Your task to perform on an android device: open device folders in google photos Image 0: 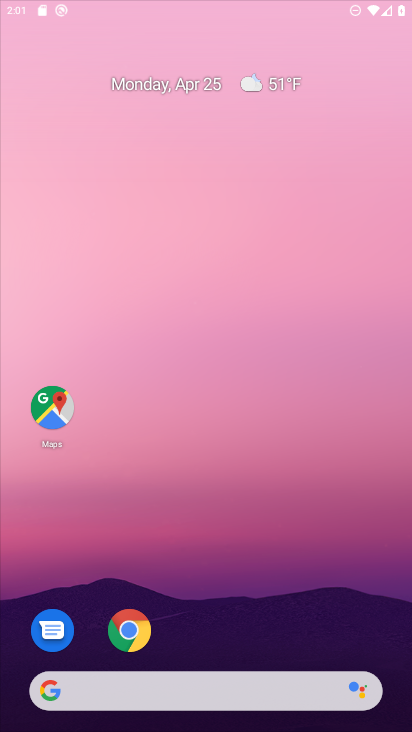
Step 0: click (318, 140)
Your task to perform on an android device: open device folders in google photos Image 1: 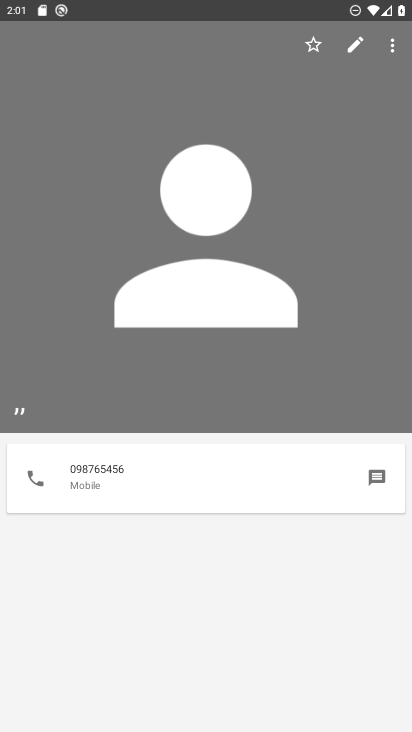
Step 1: click (397, 55)
Your task to perform on an android device: open device folders in google photos Image 2: 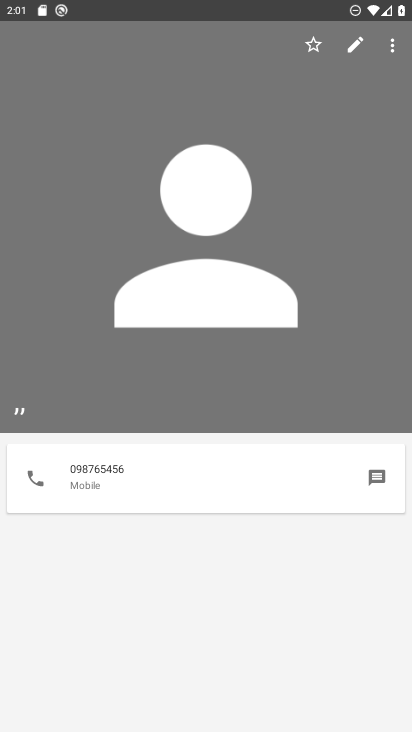
Step 2: press back button
Your task to perform on an android device: open device folders in google photos Image 3: 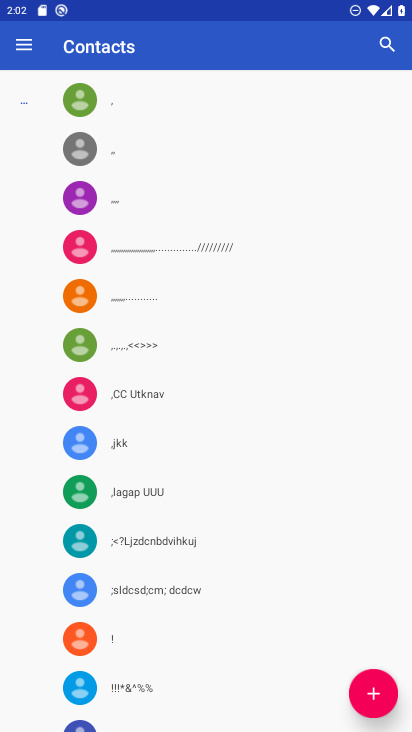
Step 3: click (21, 50)
Your task to perform on an android device: open device folders in google photos Image 4: 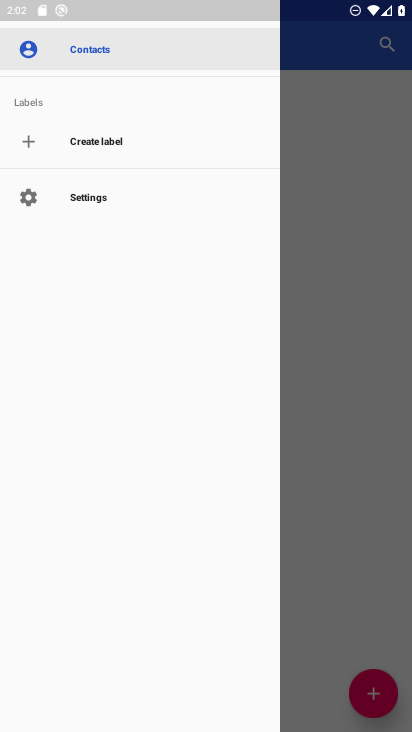
Step 4: press home button
Your task to perform on an android device: open device folders in google photos Image 5: 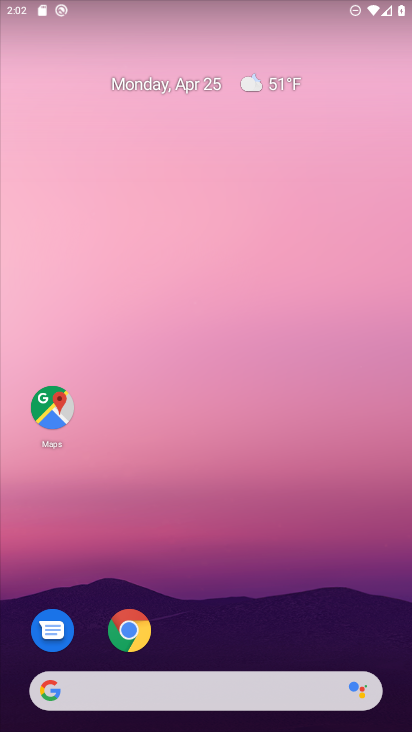
Step 5: drag from (309, 536) to (267, 51)
Your task to perform on an android device: open device folders in google photos Image 6: 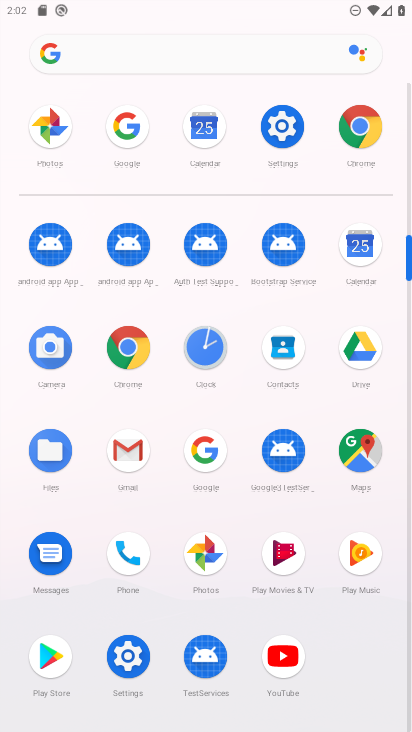
Step 6: click (208, 551)
Your task to perform on an android device: open device folders in google photos Image 7: 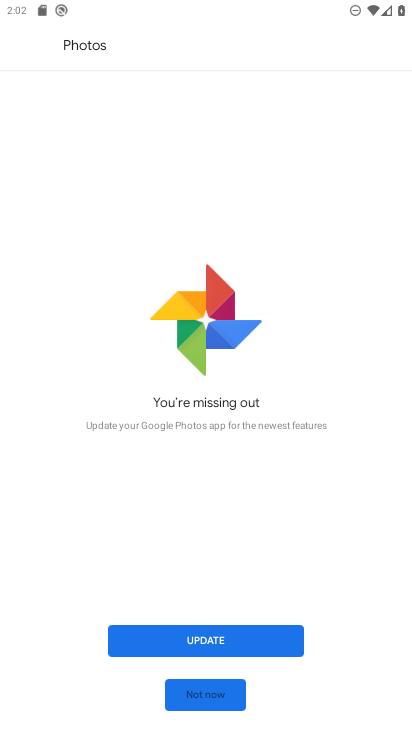
Step 7: click (196, 648)
Your task to perform on an android device: open device folders in google photos Image 8: 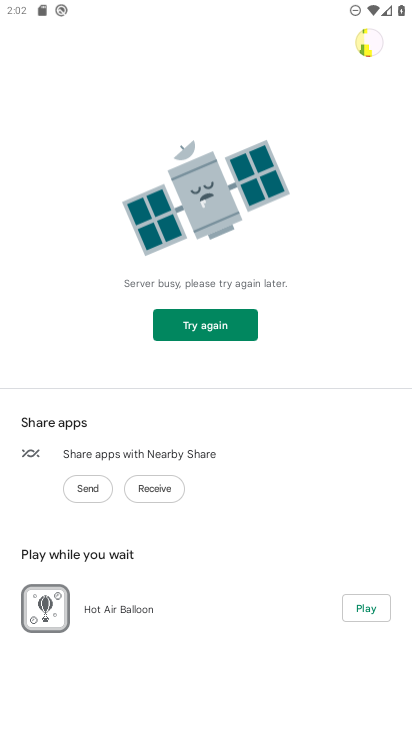
Step 8: click (182, 329)
Your task to perform on an android device: open device folders in google photos Image 9: 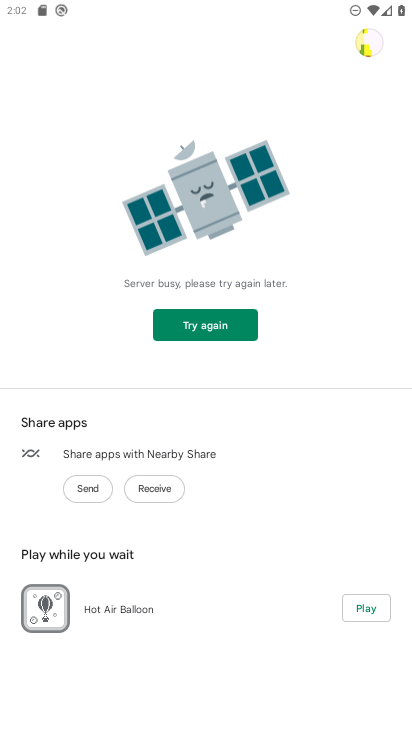
Step 9: click (213, 340)
Your task to perform on an android device: open device folders in google photos Image 10: 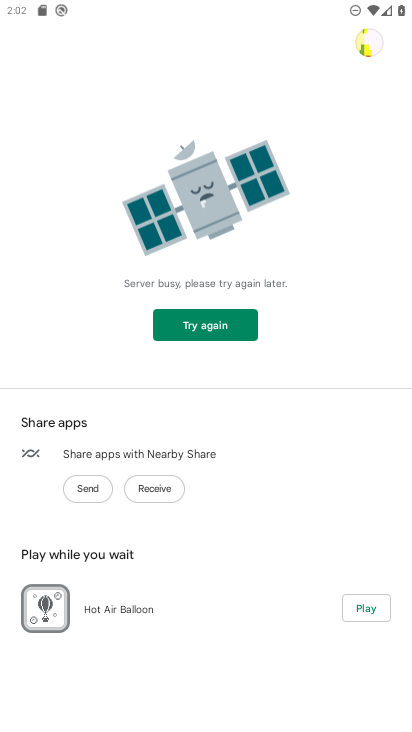
Step 10: task complete